Your task to perform on an android device: Play the last video I watched on Youtube Image 0: 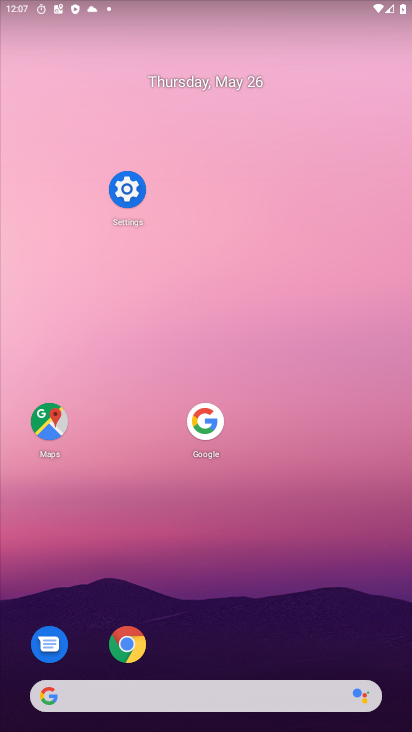
Step 0: drag from (272, 609) to (322, 102)
Your task to perform on an android device: Play the last video I watched on Youtube Image 1: 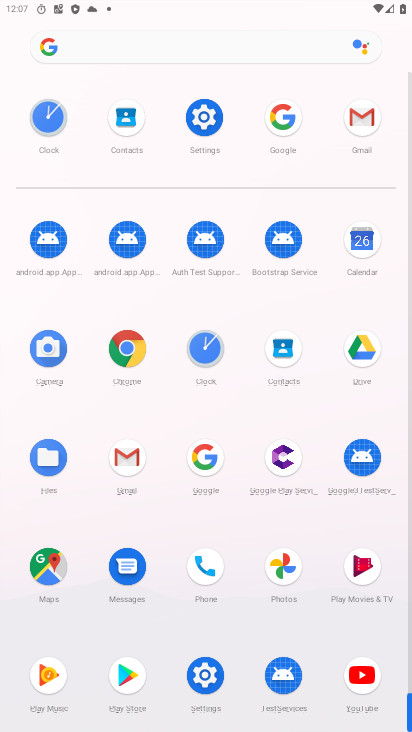
Step 1: click (360, 667)
Your task to perform on an android device: Play the last video I watched on Youtube Image 2: 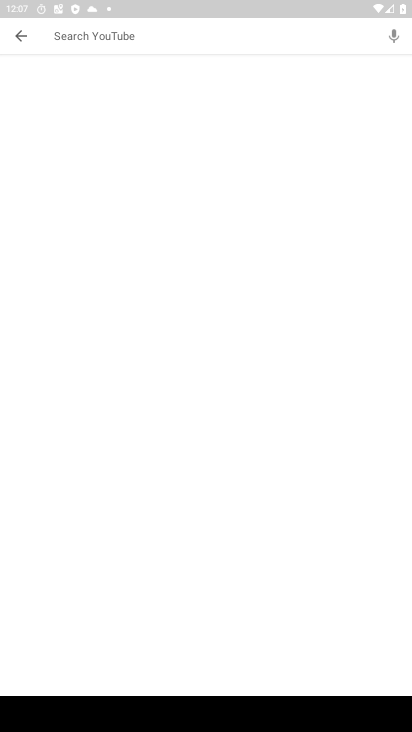
Step 2: task complete